Your task to perform on an android device: turn on translation in the chrome app Image 0: 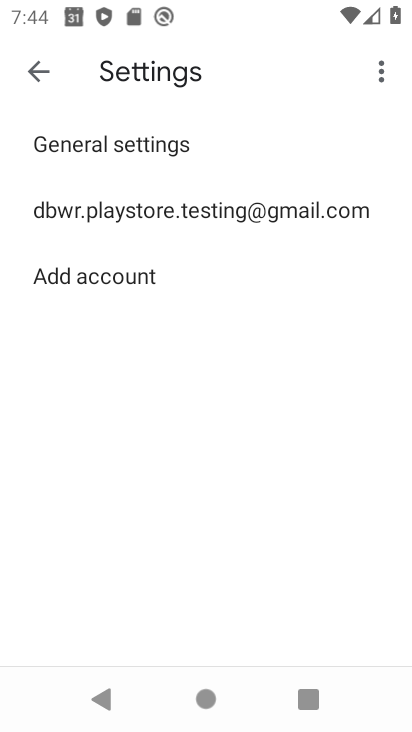
Step 0: drag from (333, 460) to (331, 207)
Your task to perform on an android device: turn on translation in the chrome app Image 1: 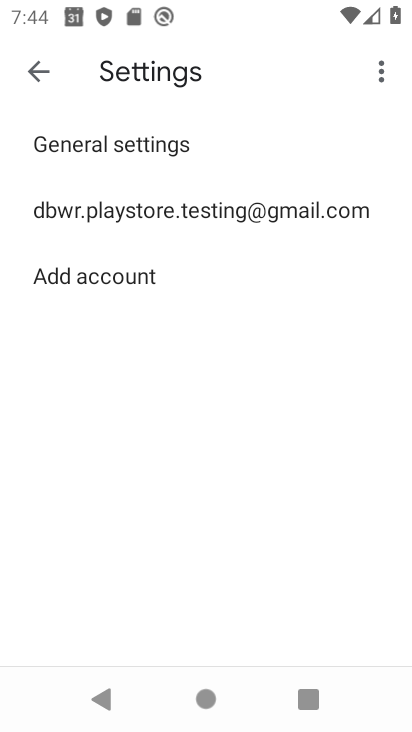
Step 1: press home button
Your task to perform on an android device: turn on translation in the chrome app Image 2: 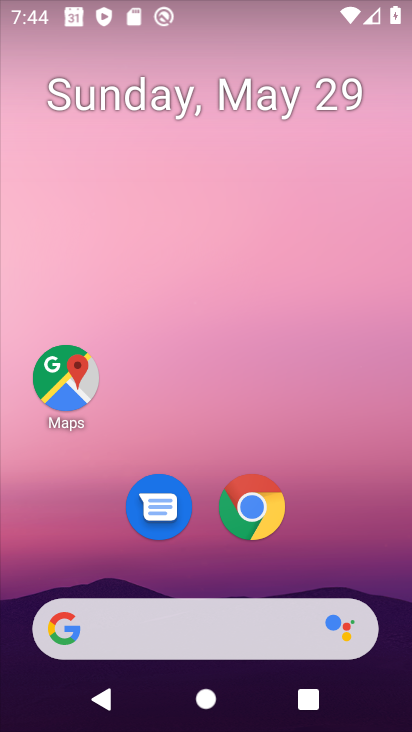
Step 2: click (249, 501)
Your task to perform on an android device: turn on translation in the chrome app Image 3: 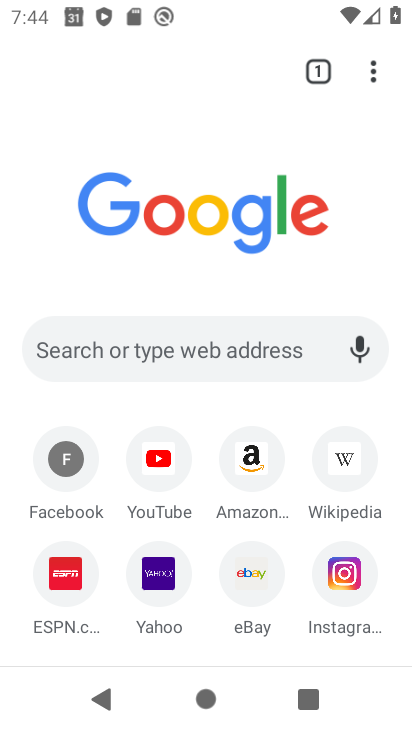
Step 3: drag from (370, 60) to (285, 503)
Your task to perform on an android device: turn on translation in the chrome app Image 4: 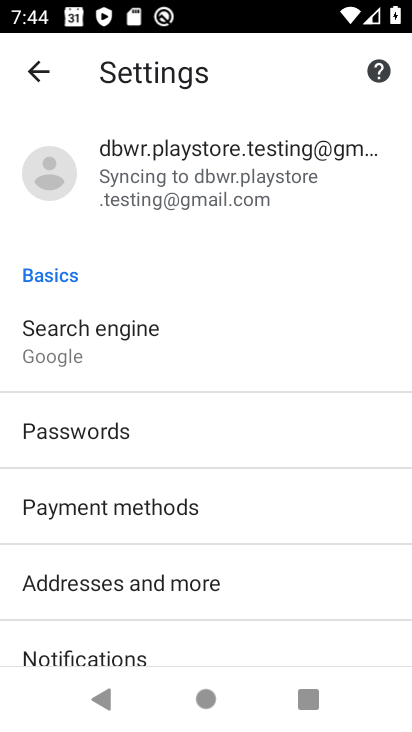
Step 4: drag from (217, 559) to (293, 195)
Your task to perform on an android device: turn on translation in the chrome app Image 5: 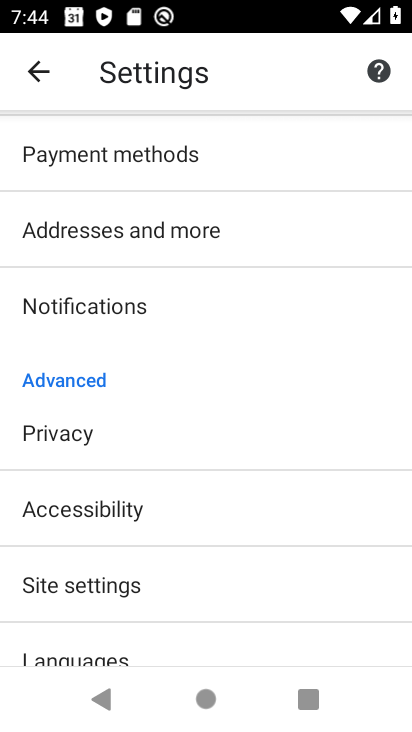
Step 5: drag from (201, 516) to (262, 338)
Your task to perform on an android device: turn on translation in the chrome app Image 6: 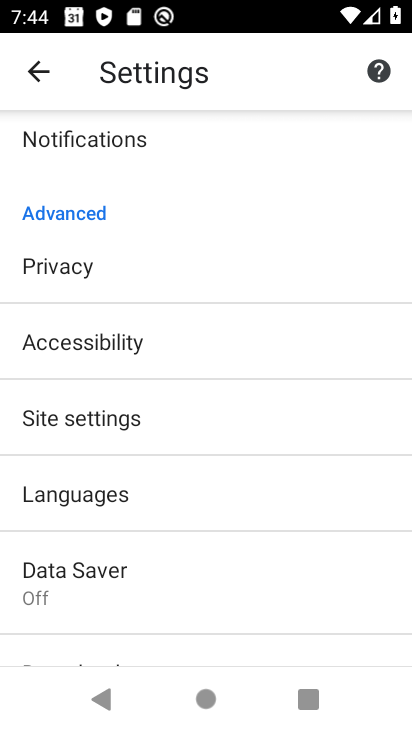
Step 6: click (111, 509)
Your task to perform on an android device: turn on translation in the chrome app Image 7: 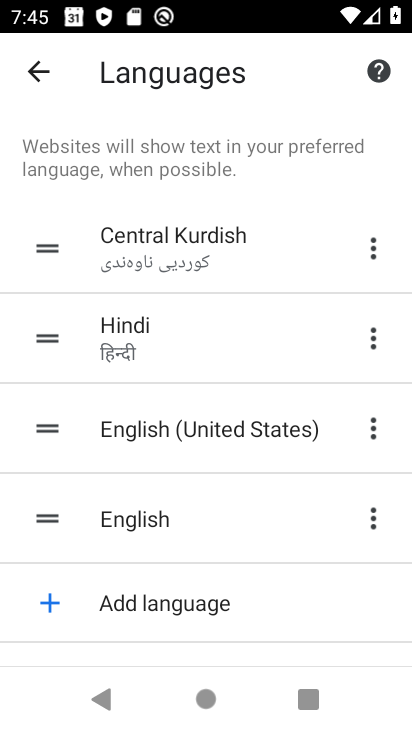
Step 7: drag from (315, 570) to (352, 226)
Your task to perform on an android device: turn on translation in the chrome app Image 8: 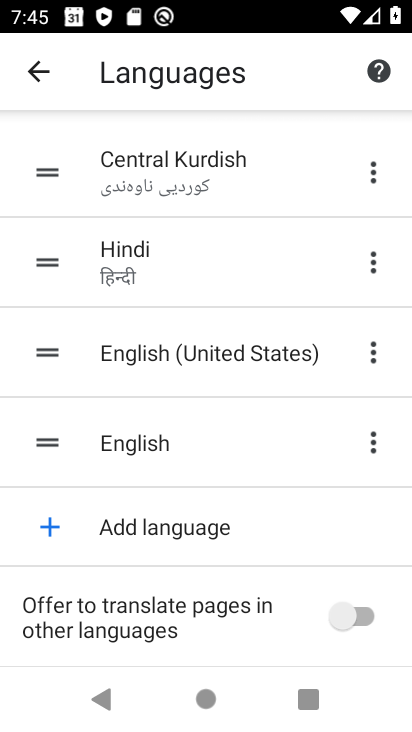
Step 8: click (330, 627)
Your task to perform on an android device: turn on translation in the chrome app Image 9: 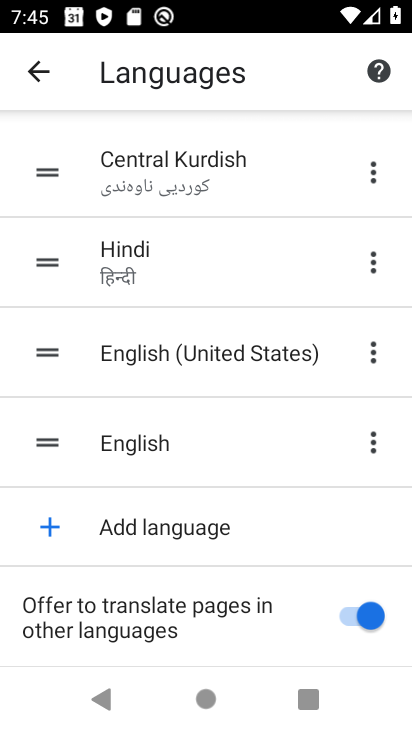
Step 9: task complete